Your task to perform on an android device: Empty the shopping cart on target.com. Search for usb-c to usb-b on target.com, select the first entry, add it to the cart, then select checkout. Image 0: 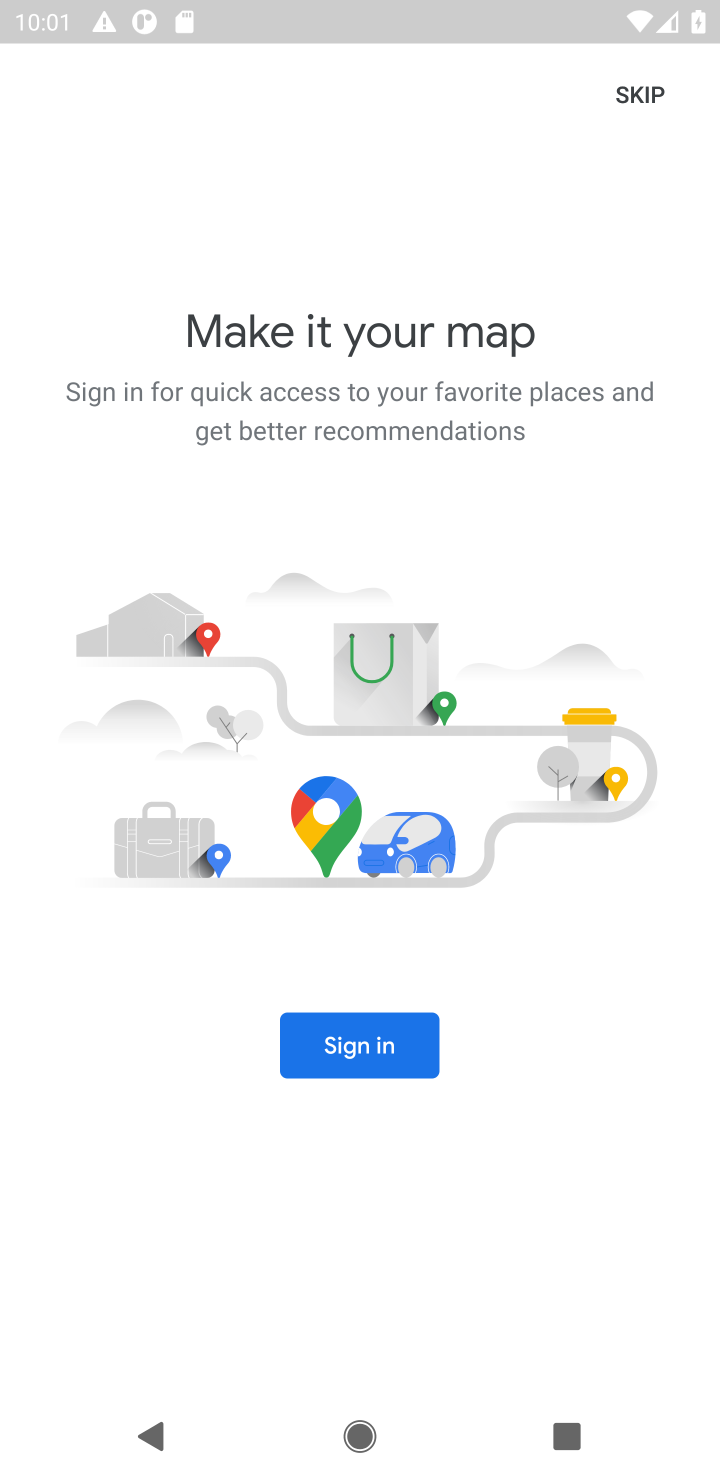
Step 0: press home button
Your task to perform on an android device: Empty the shopping cart on target.com. Search for usb-c to usb-b on target.com, select the first entry, add it to the cart, then select checkout. Image 1: 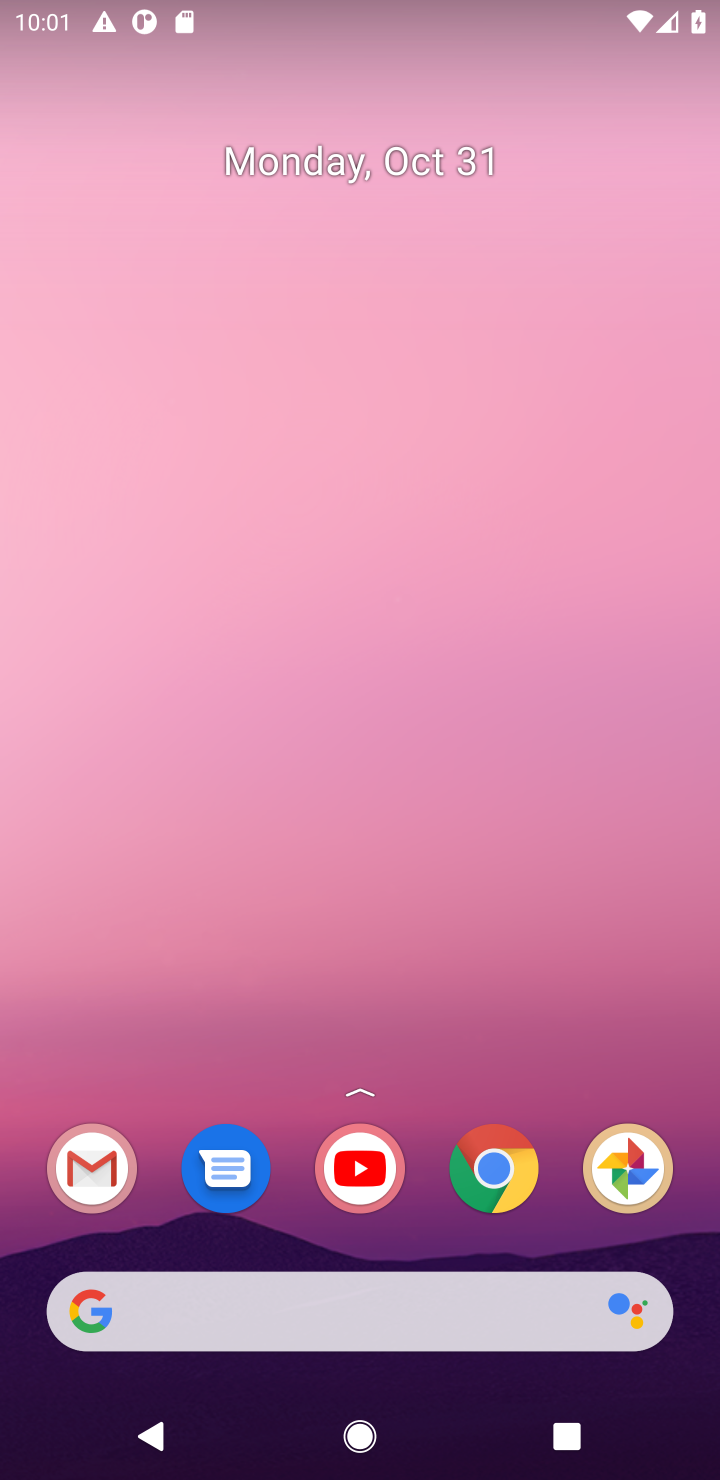
Step 1: click (511, 1158)
Your task to perform on an android device: Empty the shopping cart on target.com. Search for usb-c to usb-b on target.com, select the first entry, add it to the cart, then select checkout. Image 2: 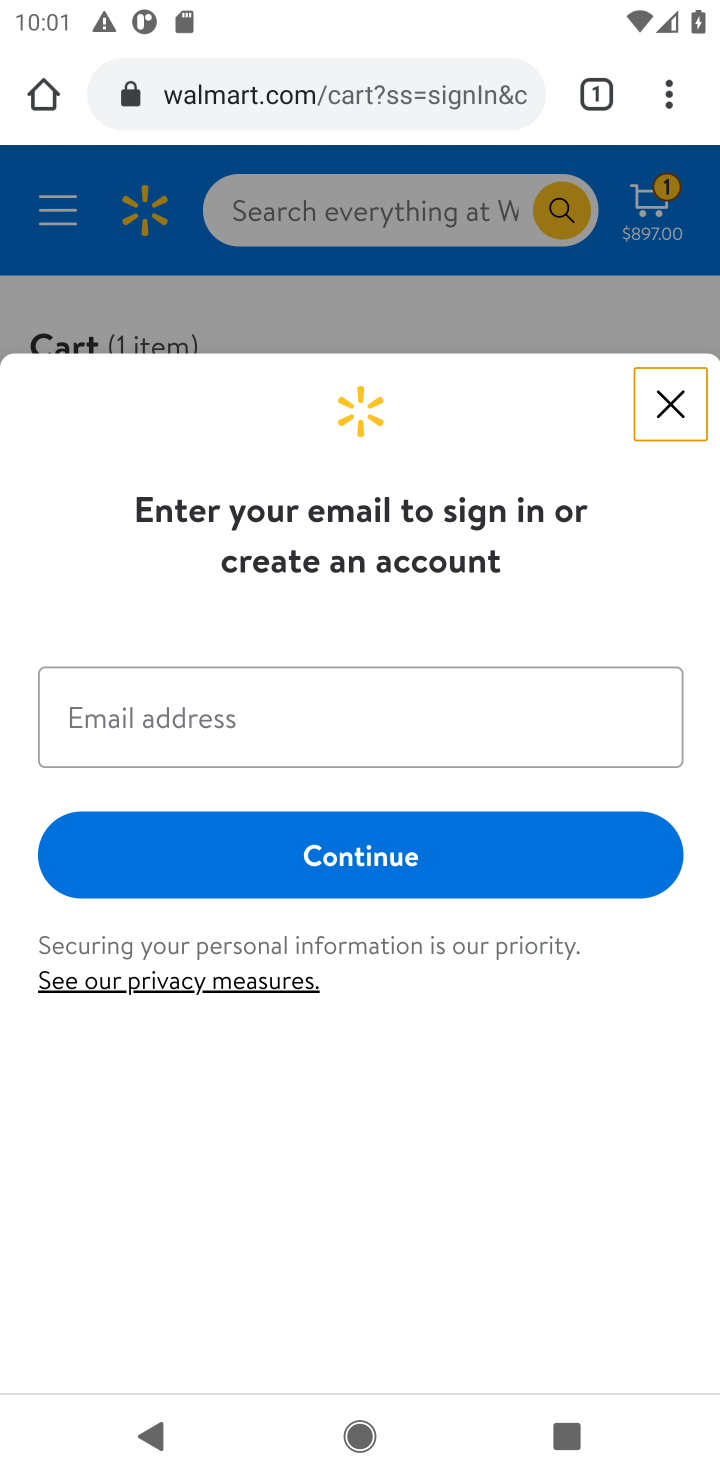
Step 2: click (369, 84)
Your task to perform on an android device: Empty the shopping cart on target.com. Search for usb-c to usb-b on target.com, select the first entry, add it to the cart, then select checkout. Image 3: 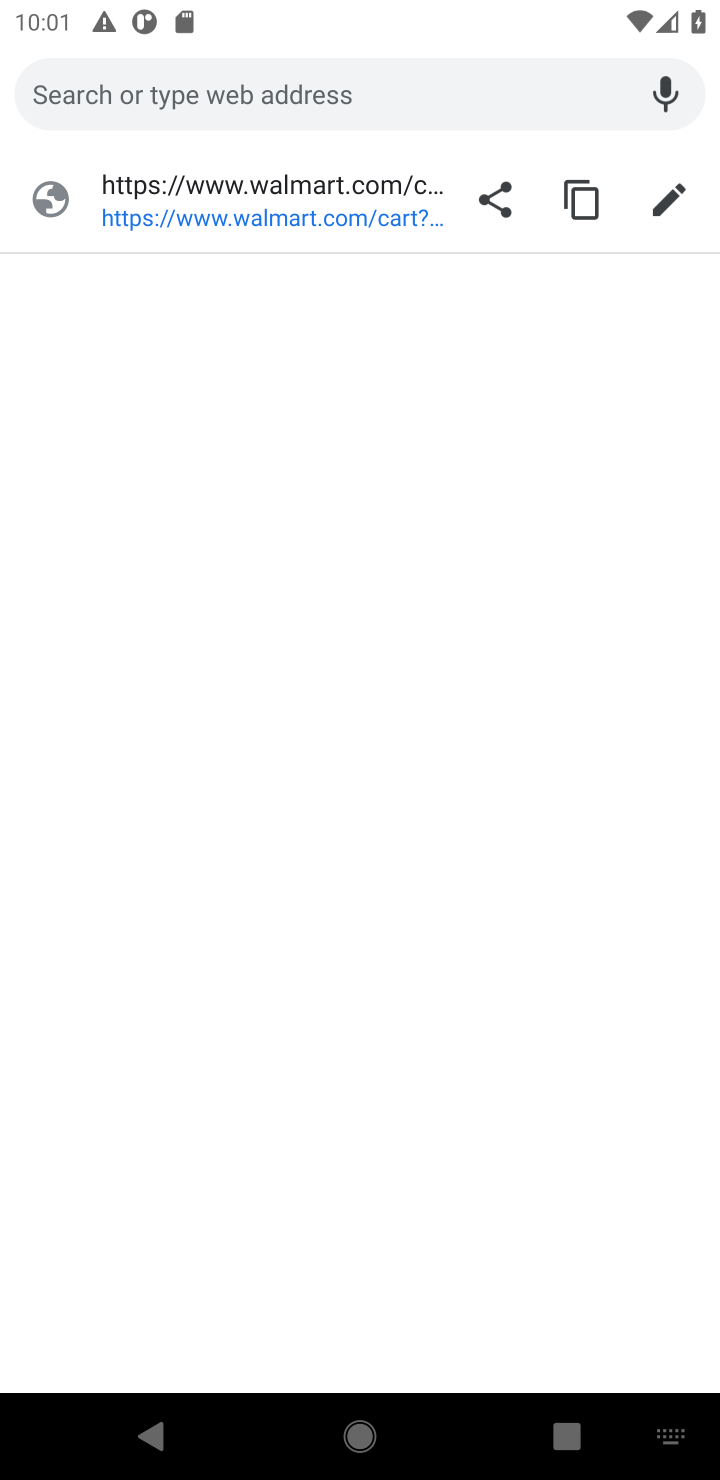
Step 3: type "target.com"
Your task to perform on an android device: Empty the shopping cart on target.com. Search for usb-c to usb-b on target.com, select the first entry, add it to the cart, then select checkout. Image 4: 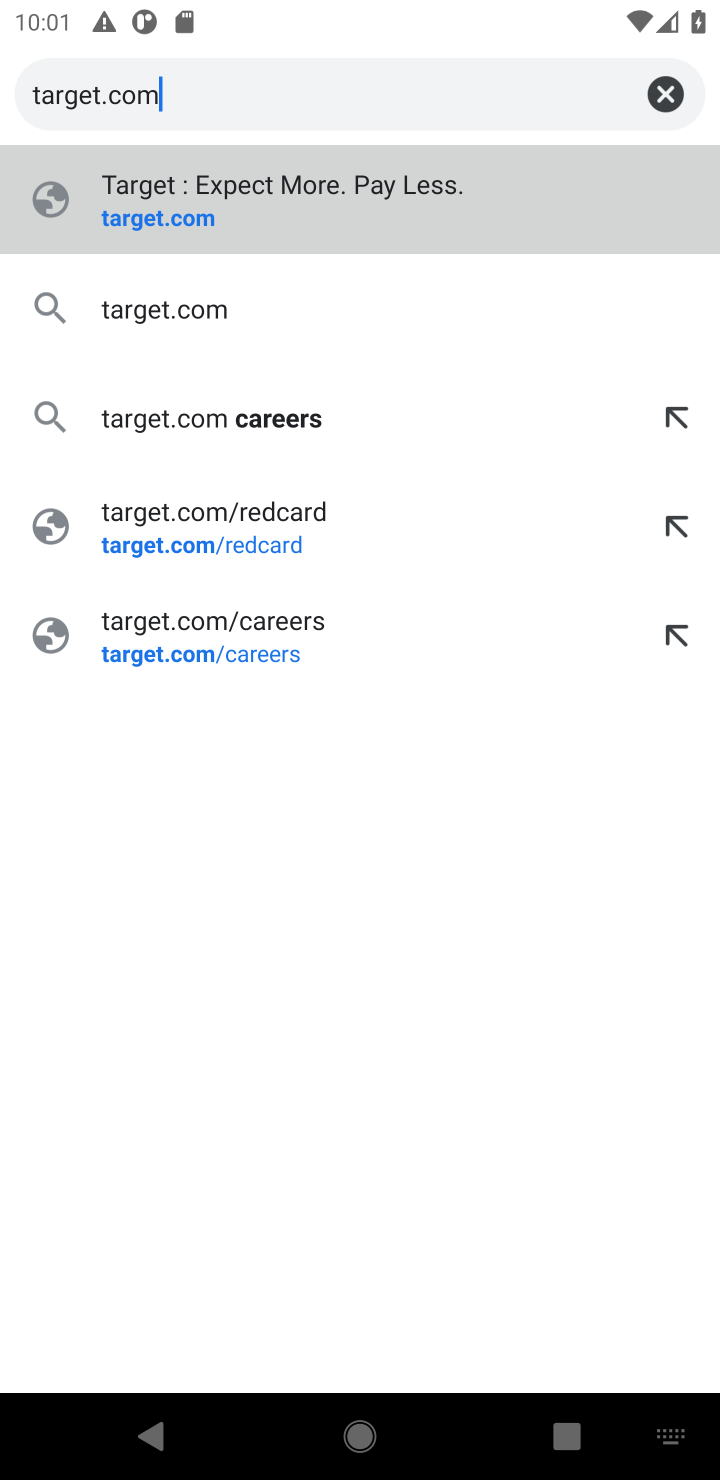
Step 4: press enter
Your task to perform on an android device: Empty the shopping cart on target.com. Search for usb-c to usb-b on target.com, select the first entry, add it to the cart, then select checkout. Image 5: 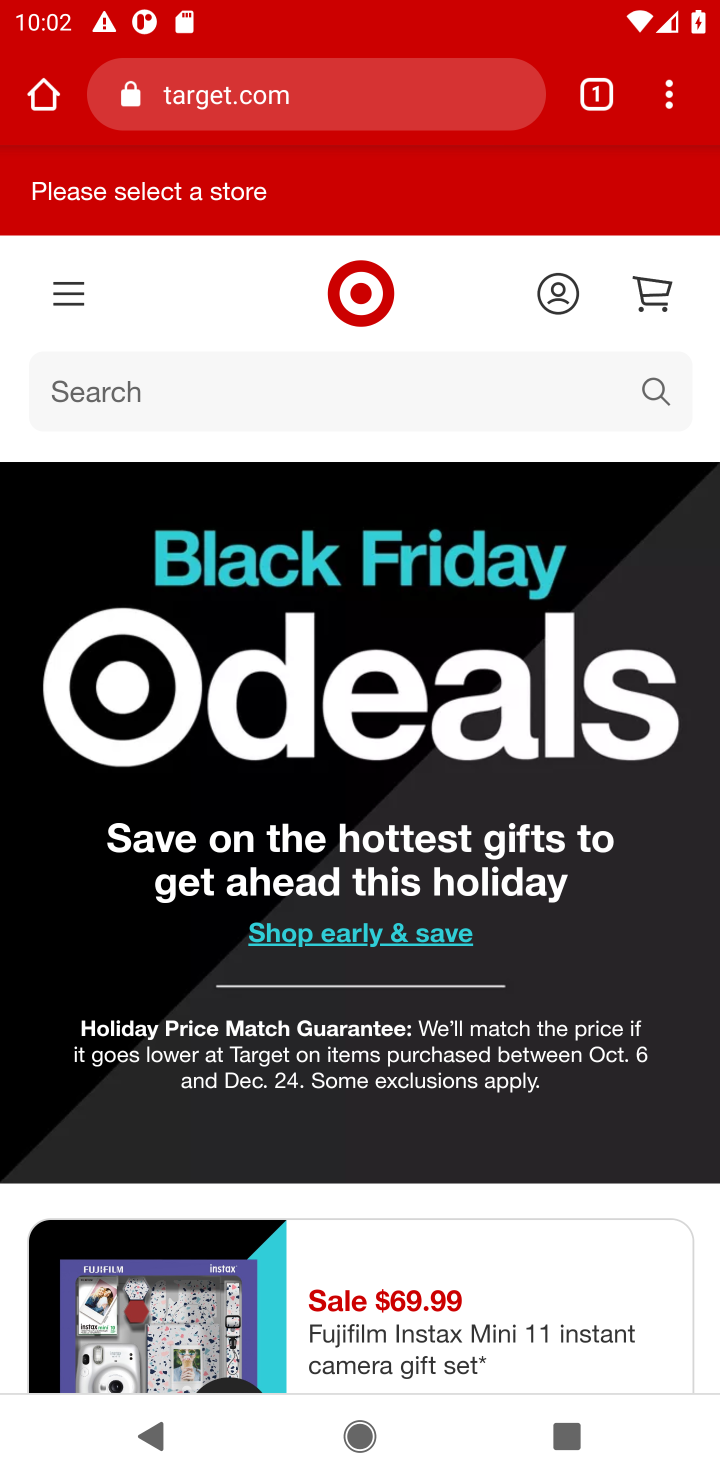
Step 5: click (658, 293)
Your task to perform on an android device: Empty the shopping cart on target.com. Search for usb-c to usb-b on target.com, select the first entry, add it to the cart, then select checkout. Image 6: 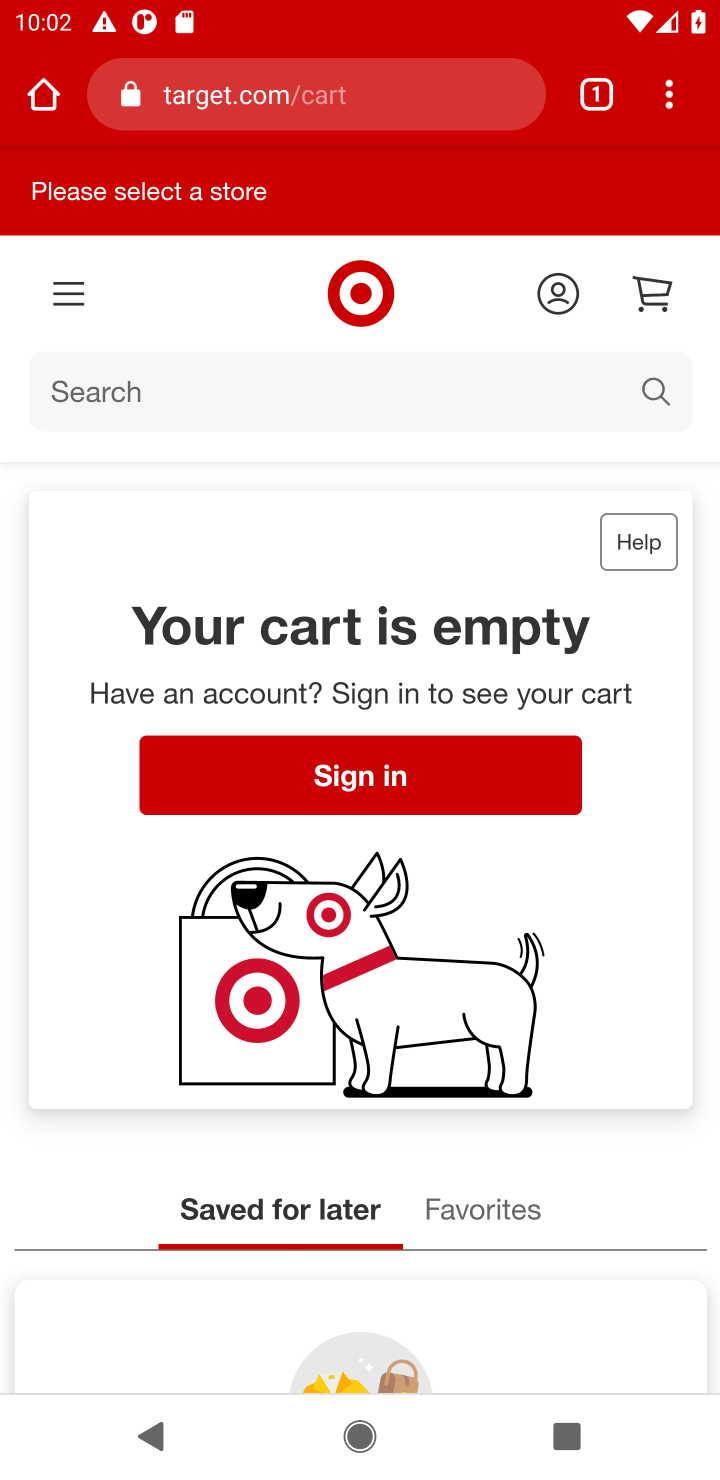
Step 6: click (453, 399)
Your task to perform on an android device: Empty the shopping cart on target.com. Search for usb-c to usb-b on target.com, select the first entry, add it to the cart, then select checkout. Image 7: 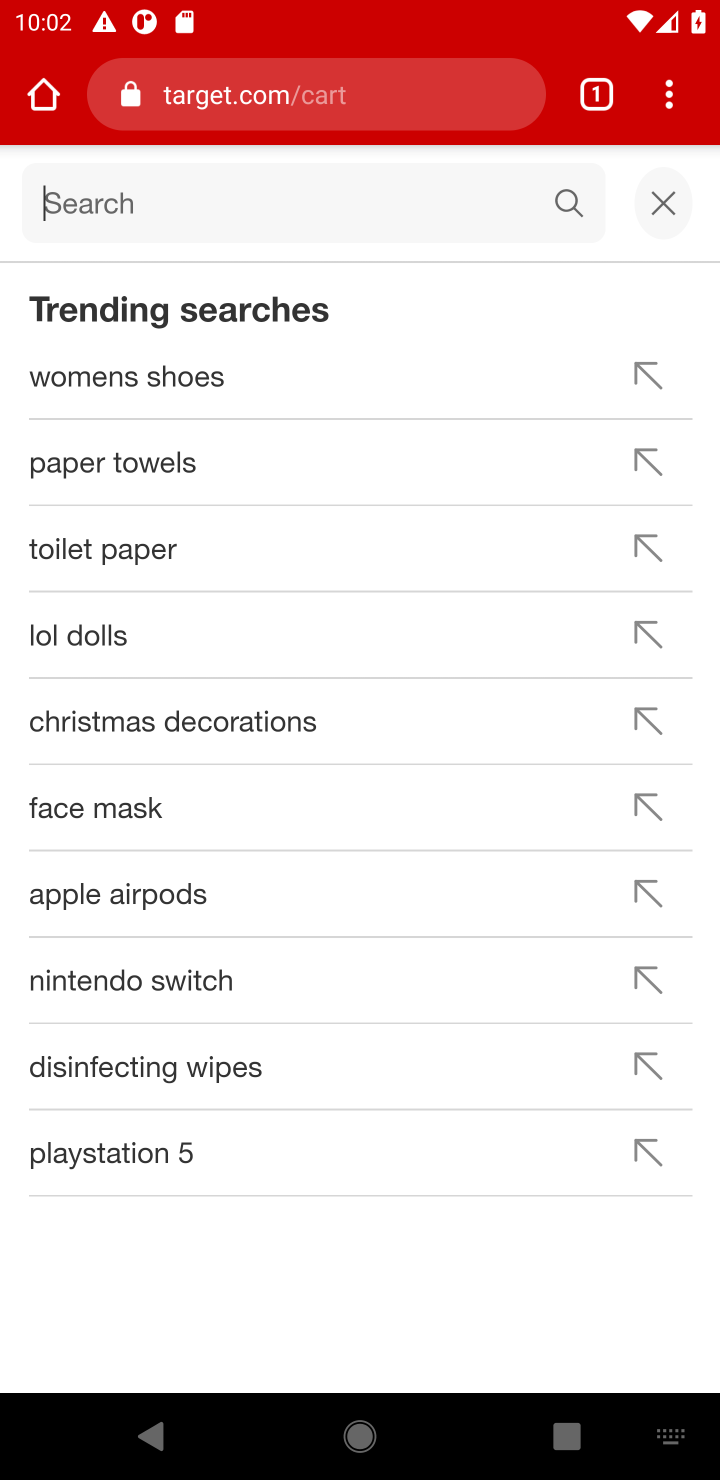
Step 7: type "usb-c to usb-b"
Your task to perform on an android device: Empty the shopping cart on target.com. Search for usb-c to usb-b on target.com, select the first entry, add it to the cart, then select checkout. Image 8: 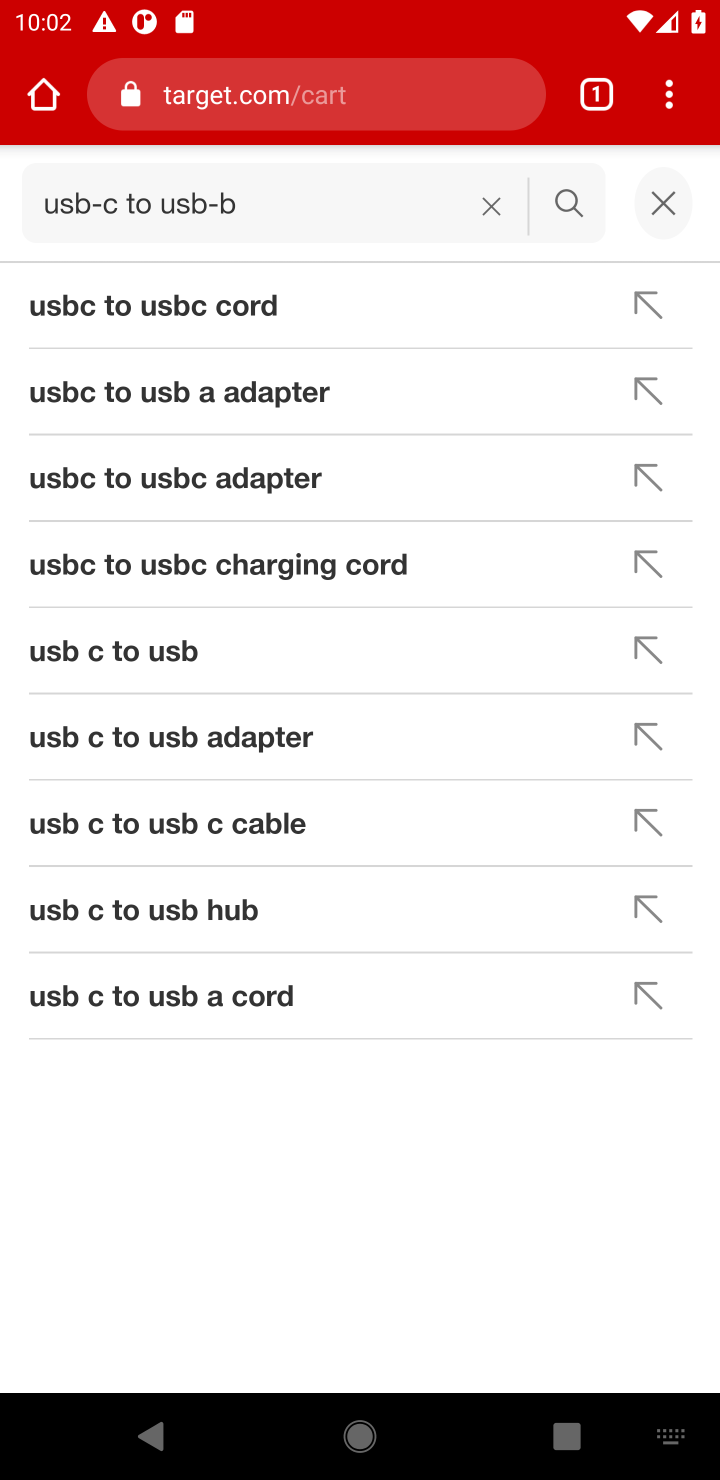
Step 8: press enter
Your task to perform on an android device: Empty the shopping cart on target.com. Search for usb-c to usb-b on target.com, select the first entry, add it to the cart, then select checkout. Image 9: 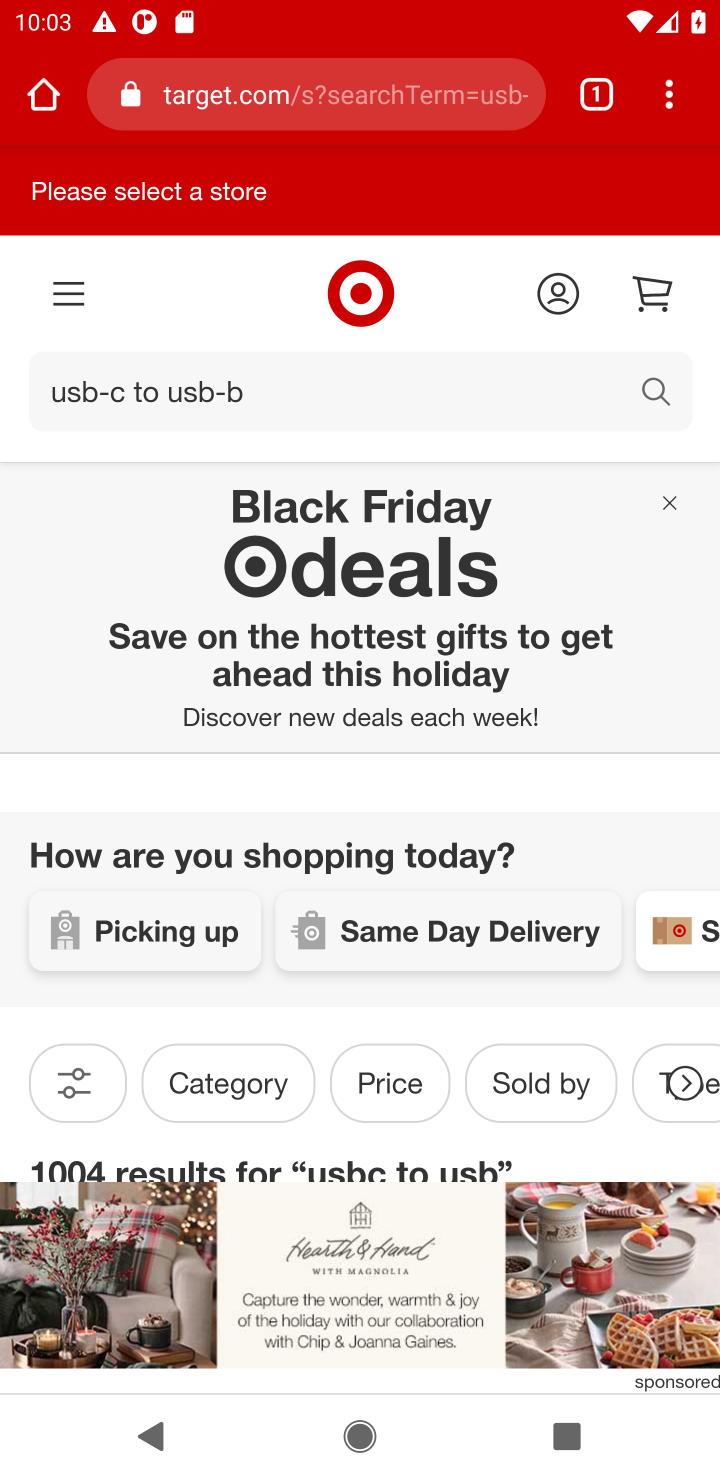
Step 9: drag from (563, 795) to (460, 249)
Your task to perform on an android device: Empty the shopping cart on target.com. Search for usb-c to usb-b on target.com, select the first entry, add it to the cart, then select checkout. Image 10: 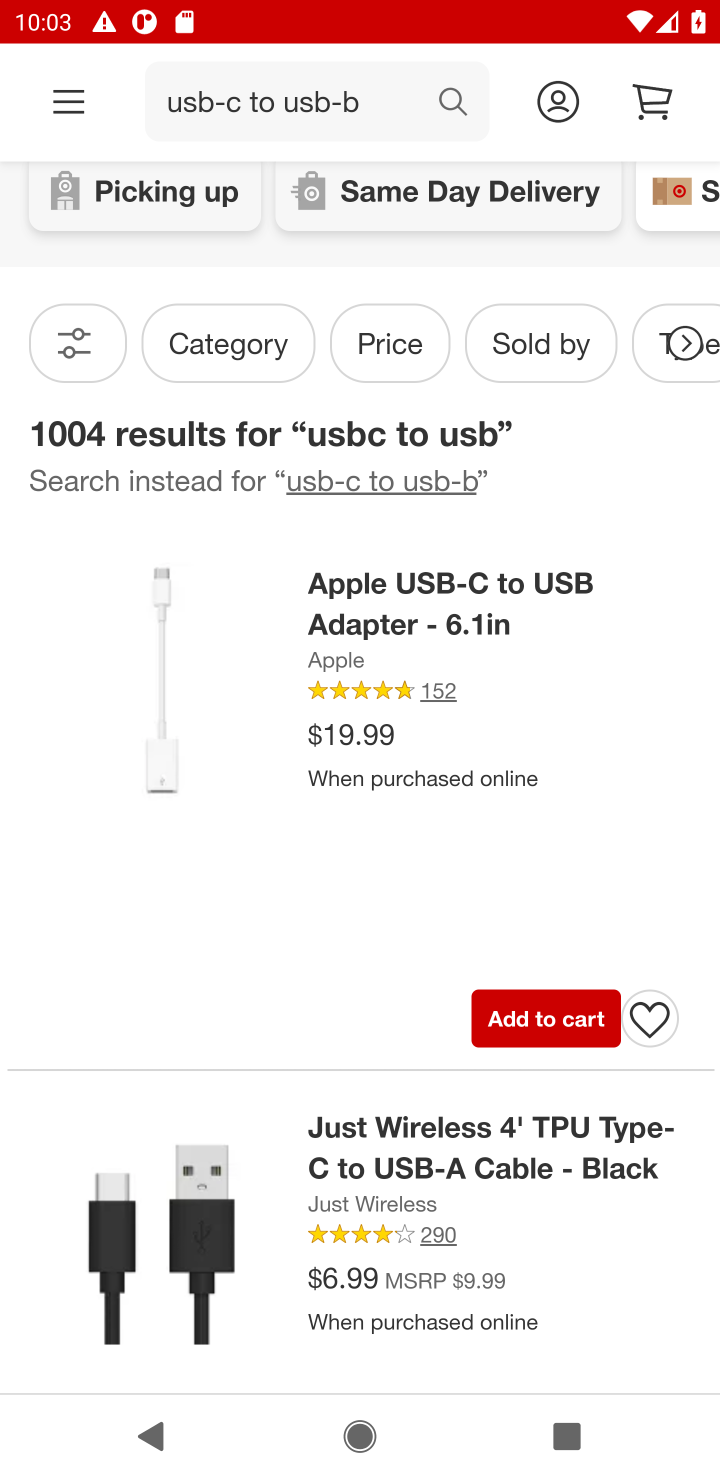
Step 10: click (401, 610)
Your task to perform on an android device: Empty the shopping cart on target.com. Search for usb-c to usb-b on target.com, select the first entry, add it to the cart, then select checkout. Image 11: 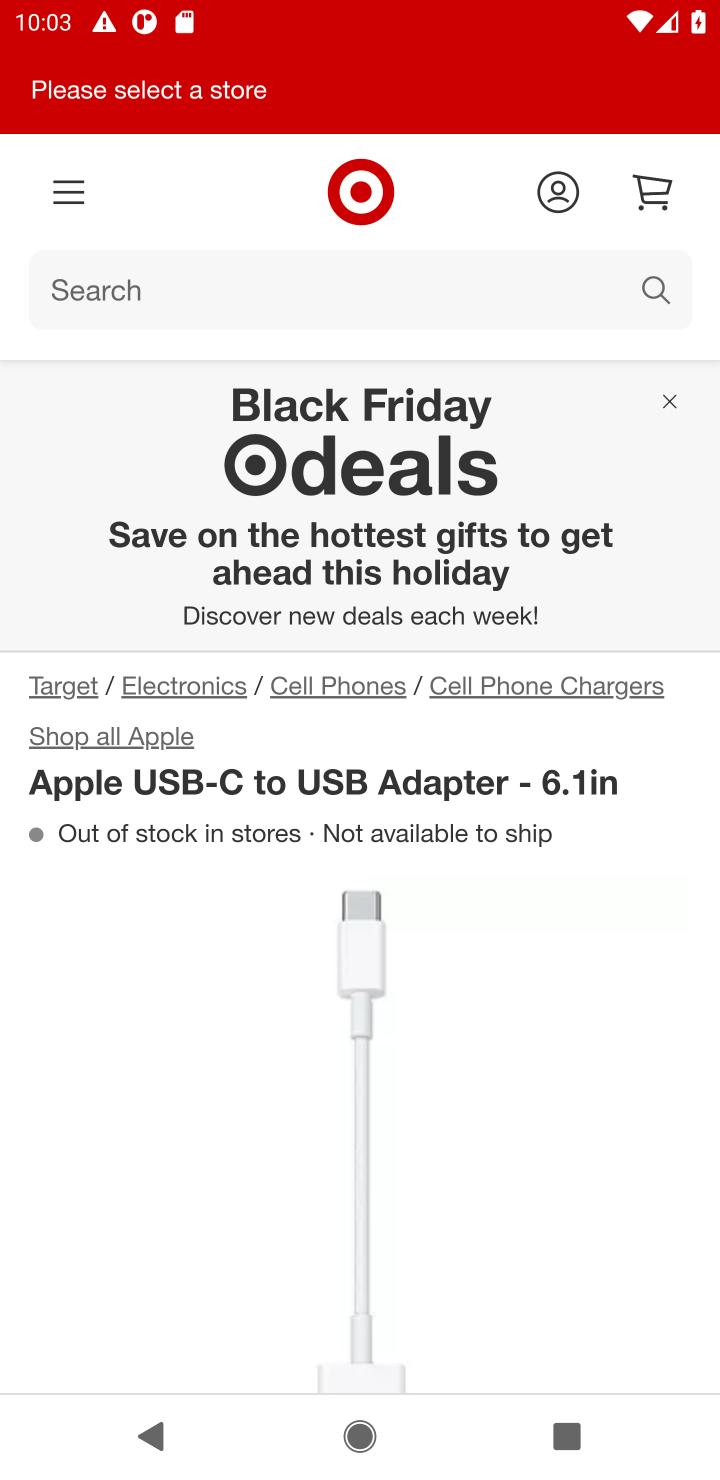
Step 11: drag from (504, 1153) to (458, 719)
Your task to perform on an android device: Empty the shopping cart on target.com. Search for usb-c to usb-b on target.com, select the first entry, add it to the cart, then select checkout. Image 12: 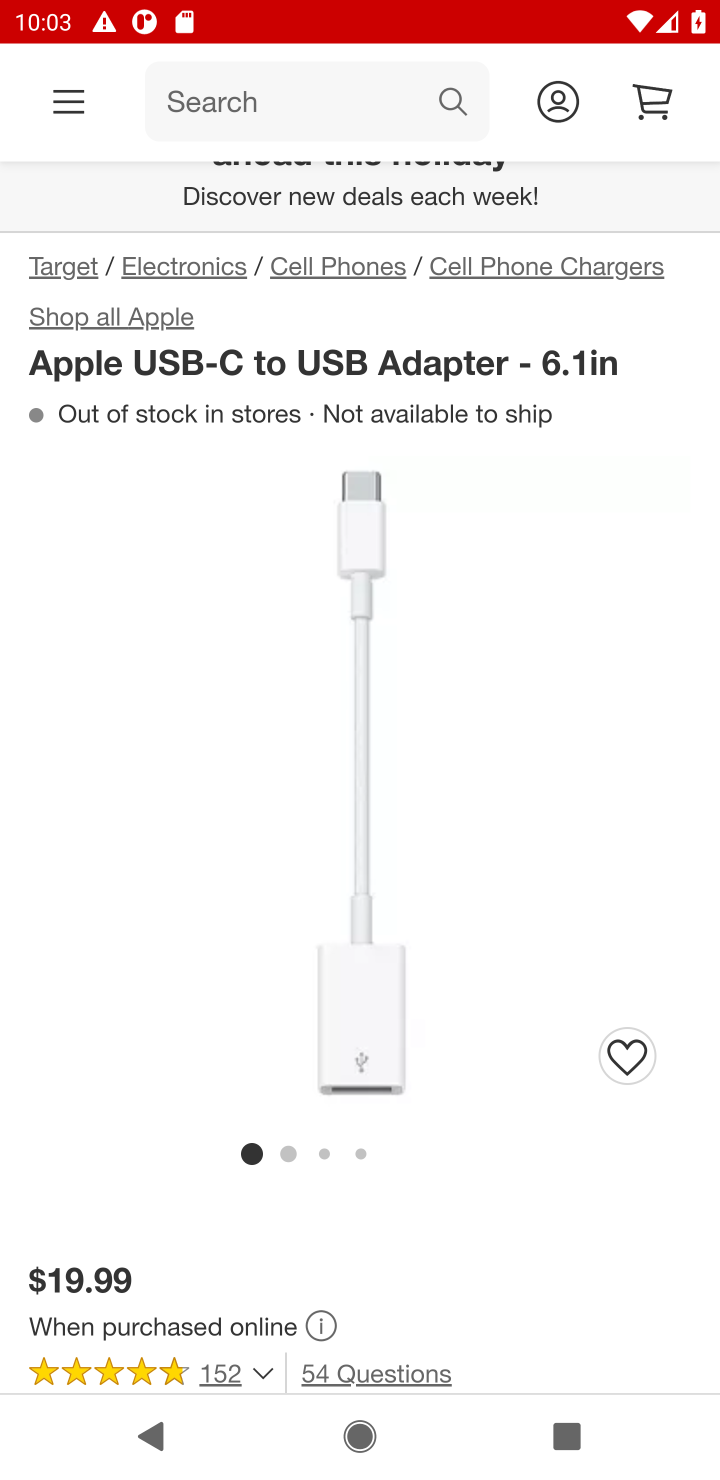
Step 12: drag from (495, 1321) to (436, 837)
Your task to perform on an android device: Empty the shopping cart on target.com. Search for usb-c to usb-b on target.com, select the first entry, add it to the cart, then select checkout. Image 13: 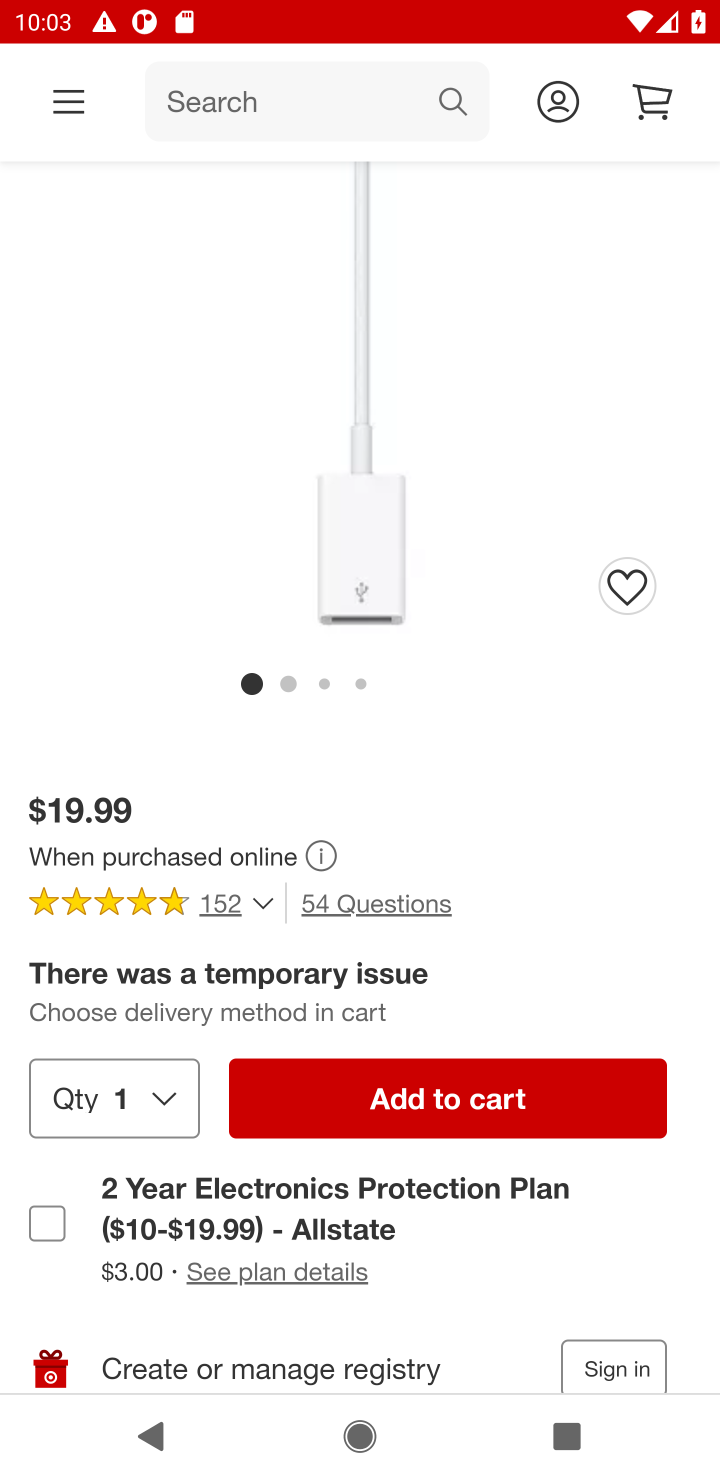
Step 13: click (453, 1098)
Your task to perform on an android device: Empty the shopping cart on target.com. Search for usb-c to usb-b on target.com, select the first entry, add it to the cart, then select checkout. Image 14: 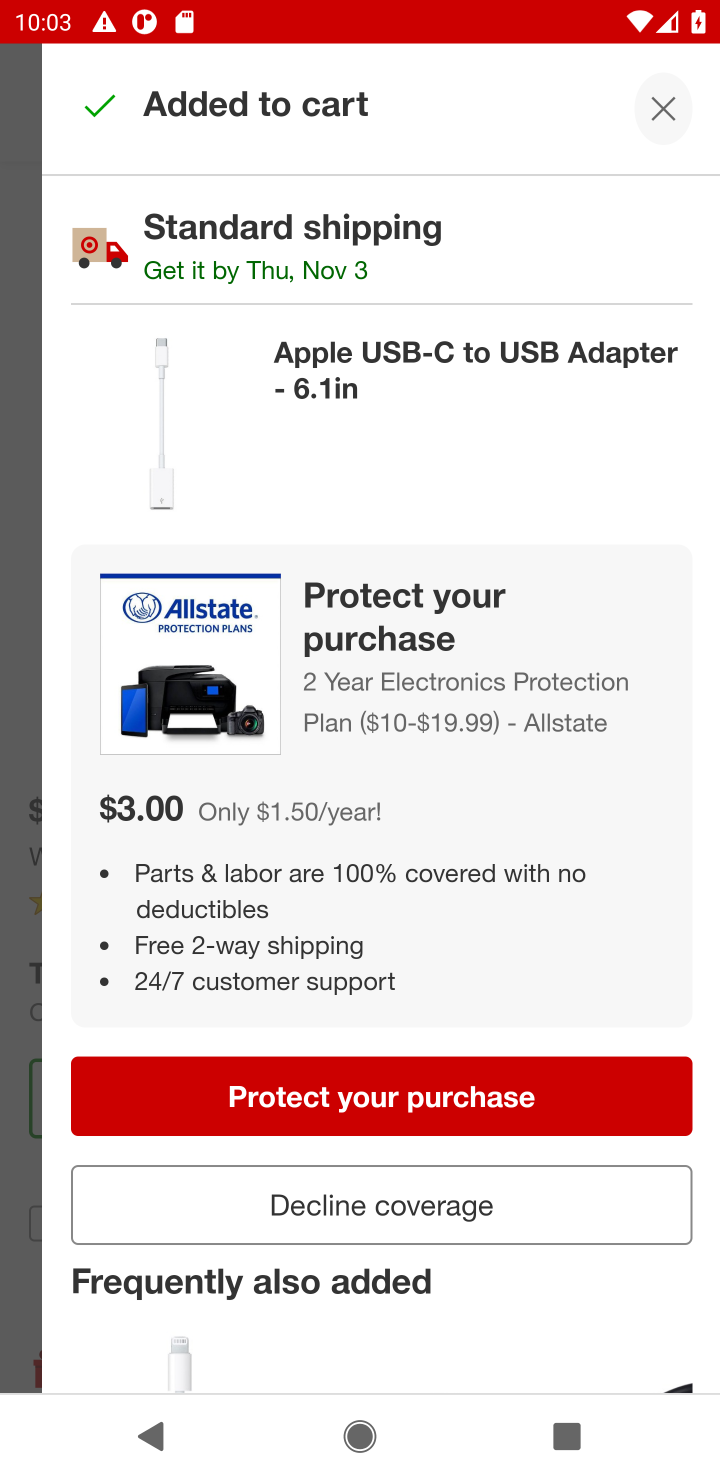
Step 14: click (419, 1207)
Your task to perform on an android device: Empty the shopping cart on target.com. Search for usb-c to usb-b on target.com, select the first entry, add it to the cart, then select checkout. Image 15: 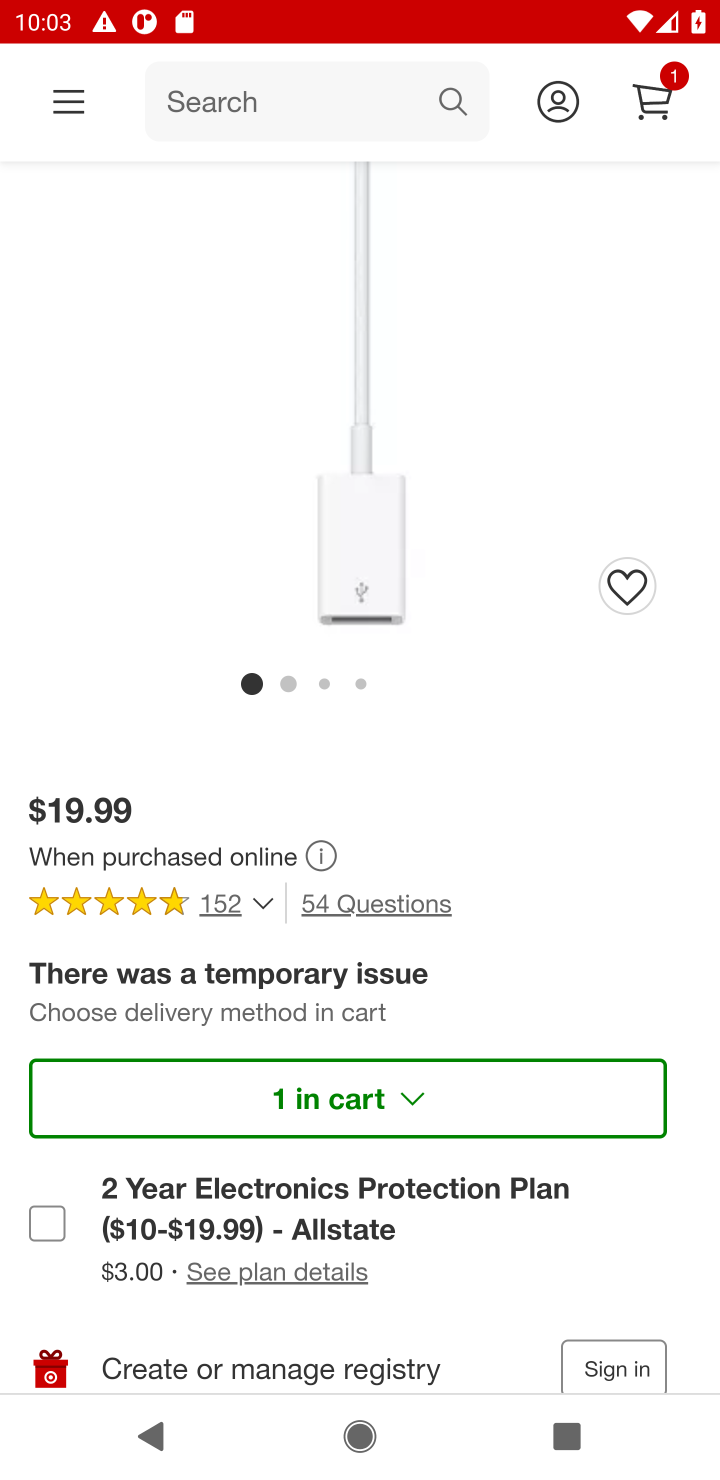
Step 15: click (659, 84)
Your task to perform on an android device: Empty the shopping cart on target.com. Search for usb-c to usb-b on target.com, select the first entry, add it to the cart, then select checkout. Image 16: 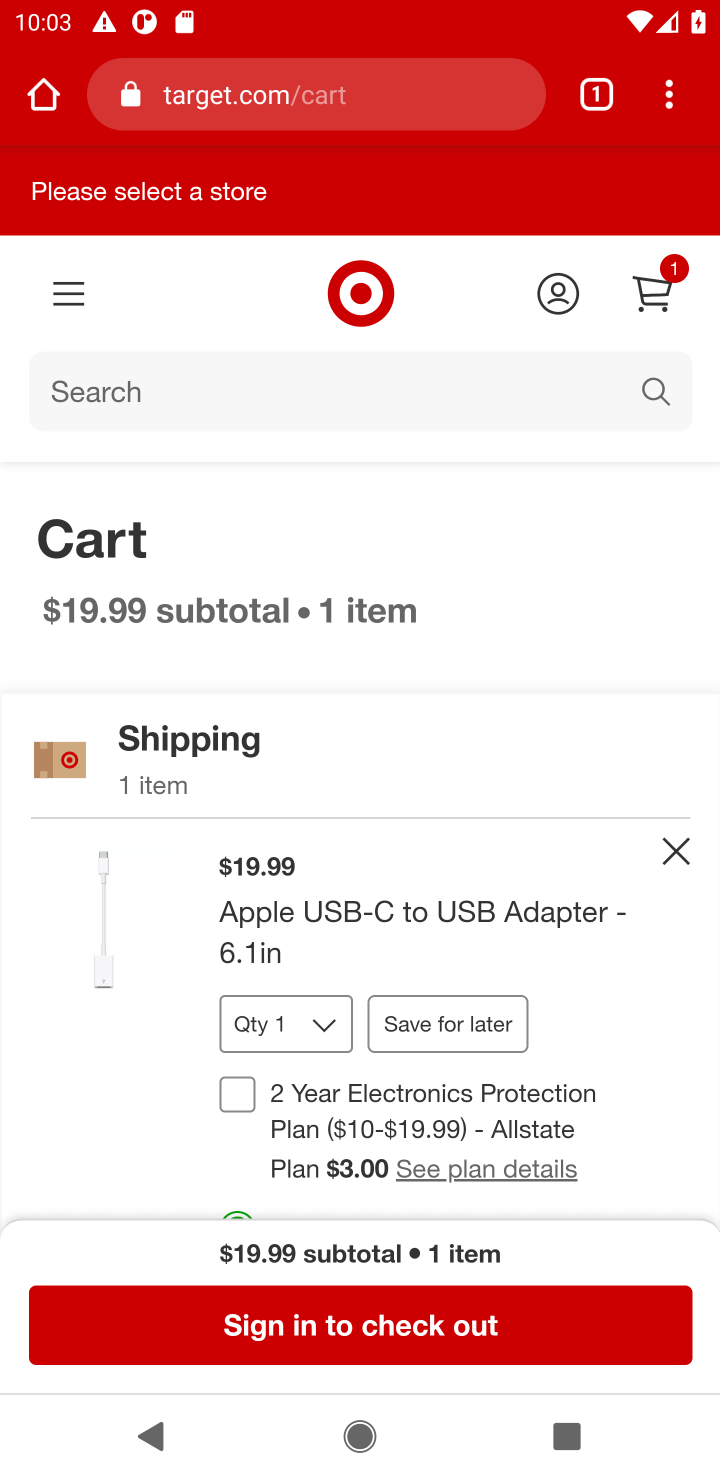
Step 16: click (362, 1328)
Your task to perform on an android device: Empty the shopping cart on target.com. Search for usb-c to usb-b on target.com, select the first entry, add it to the cart, then select checkout. Image 17: 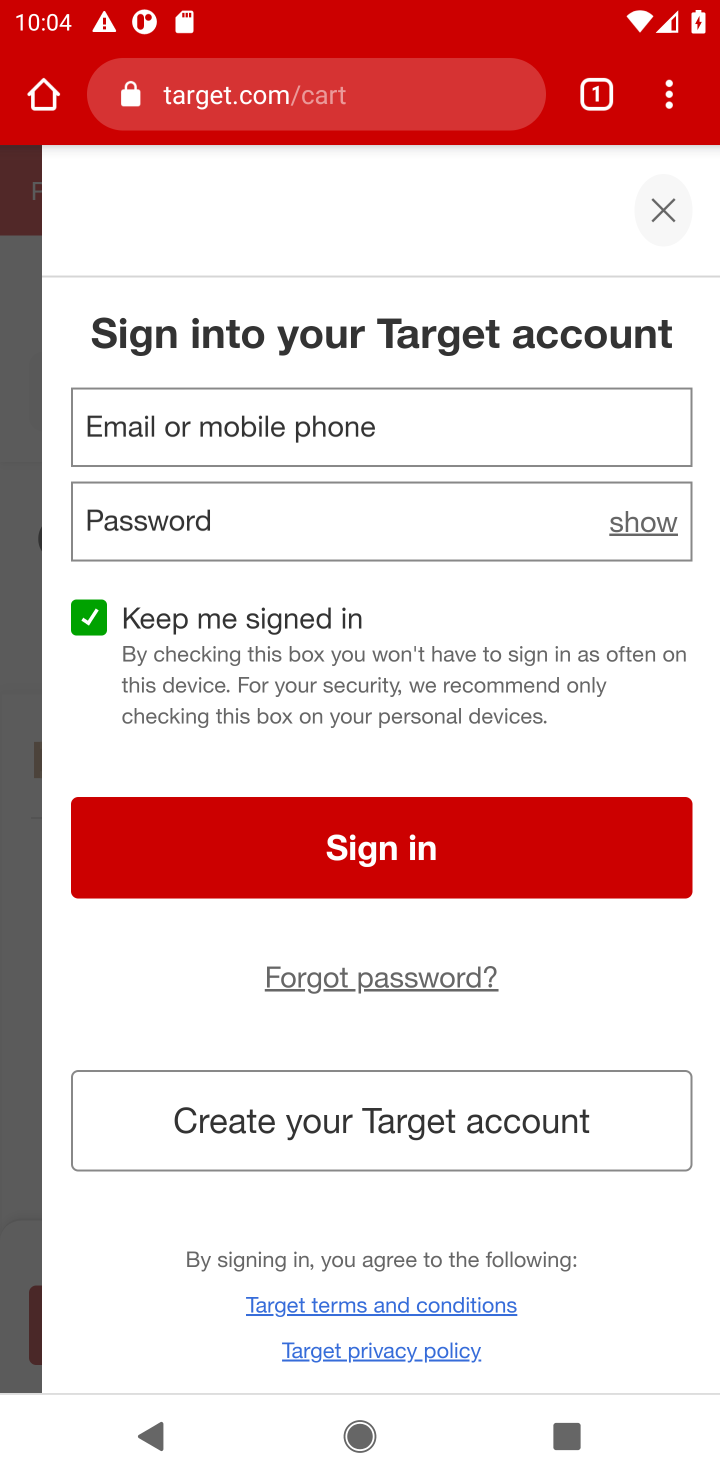
Step 17: task complete